Your task to perform on an android device: change the clock display to digital Image 0: 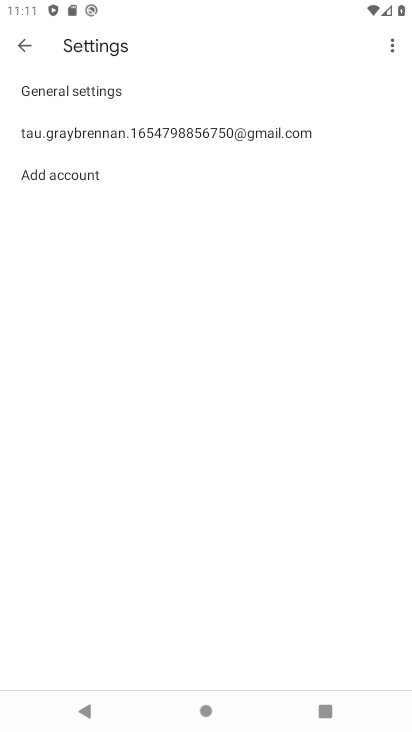
Step 0: press home button
Your task to perform on an android device: change the clock display to digital Image 1: 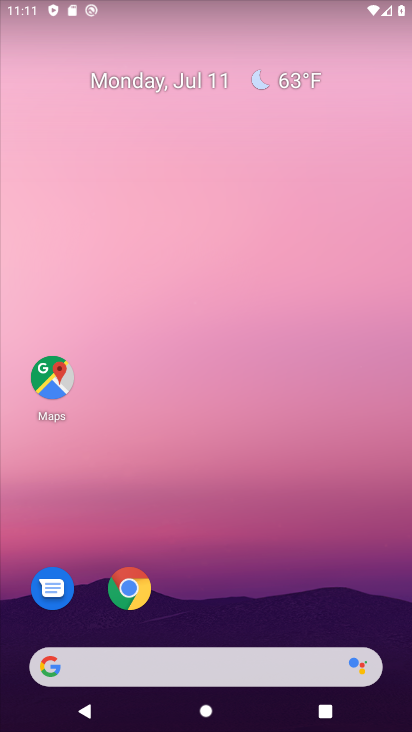
Step 1: drag from (247, 722) to (250, 96)
Your task to perform on an android device: change the clock display to digital Image 2: 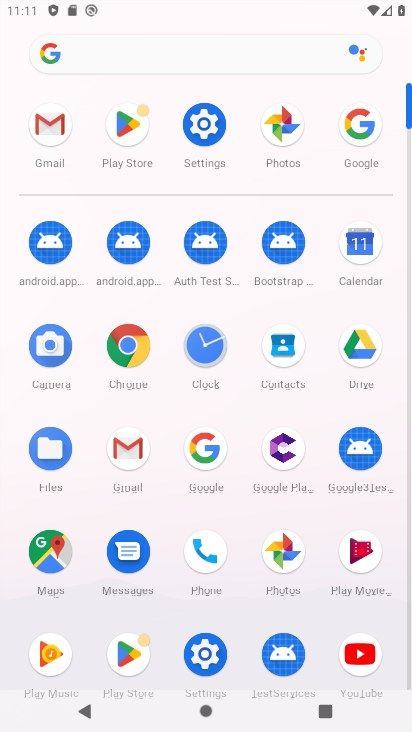
Step 2: click (202, 345)
Your task to perform on an android device: change the clock display to digital Image 3: 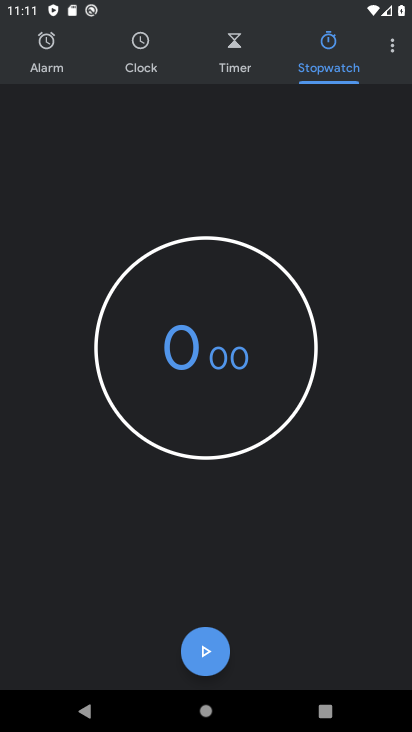
Step 3: click (390, 48)
Your task to perform on an android device: change the clock display to digital Image 4: 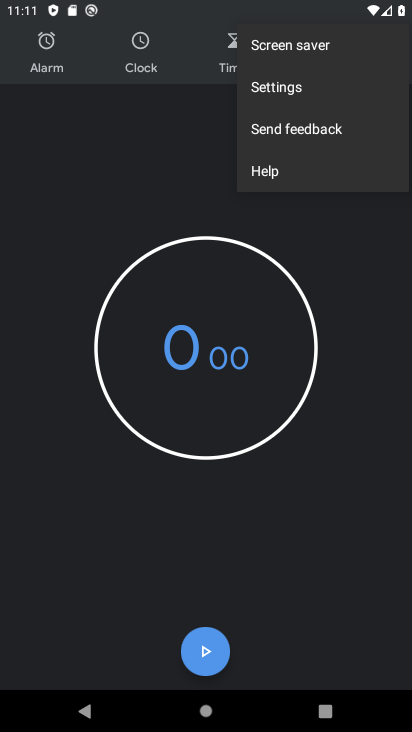
Step 4: click (285, 81)
Your task to perform on an android device: change the clock display to digital Image 5: 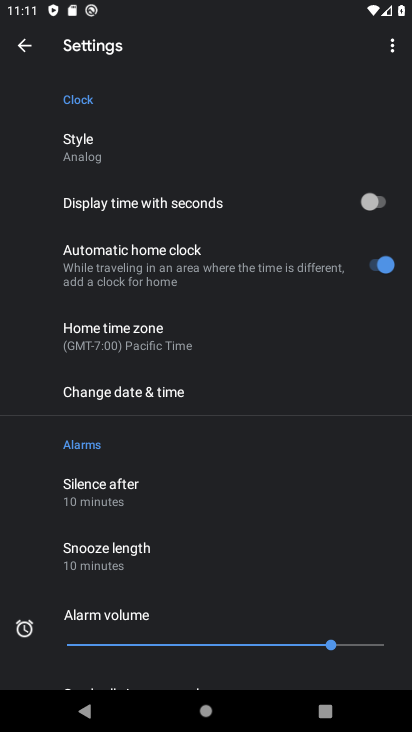
Step 5: click (82, 140)
Your task to perform on an android device: change the clock display to digital Image 6: 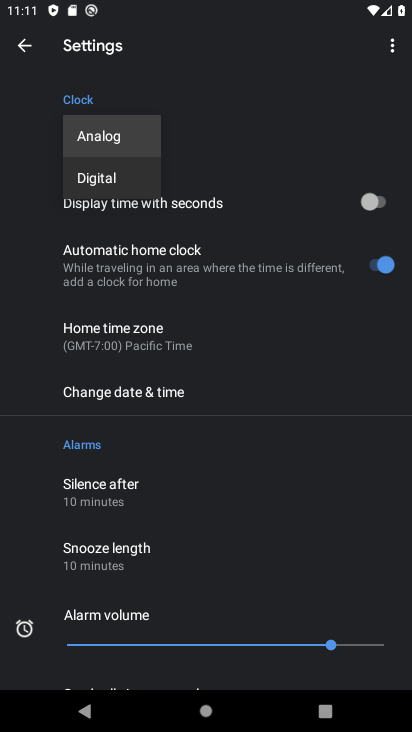
Step 6: click (96, 180)
Your task to perform on an android device: change the clock display to digital Image 7: 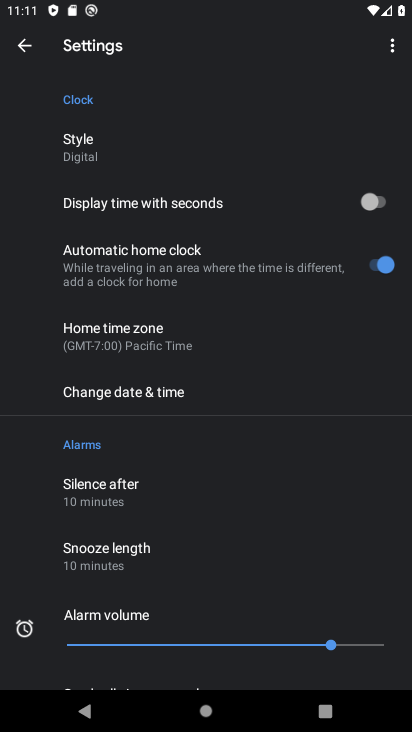
Step 7: task complete